Your task to perform on an android device: Play the latest video from the BBC Image 0: 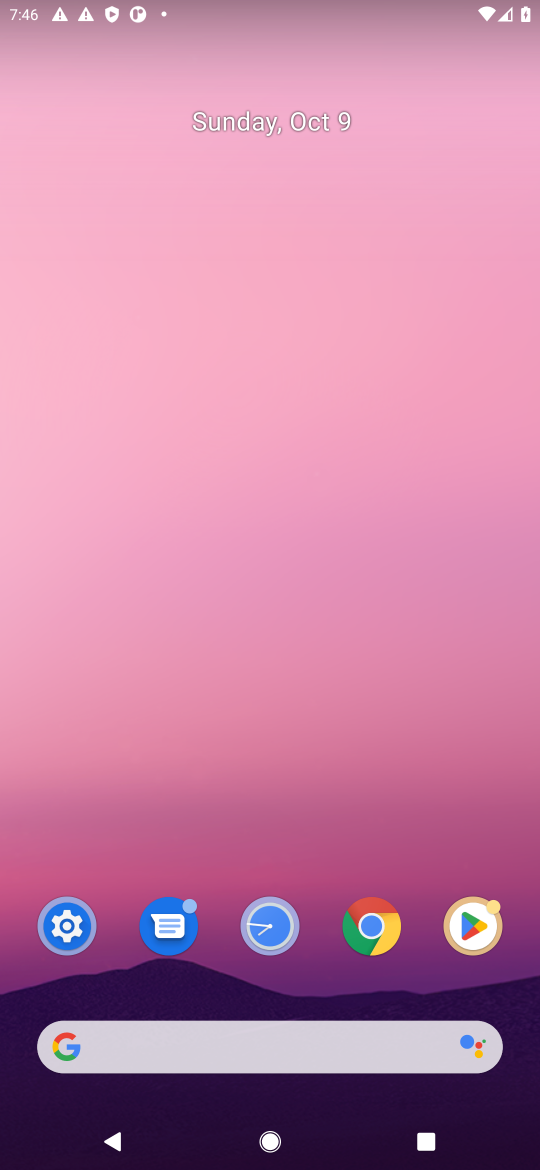
Step 0: drag from (285, 931) to (283, 203)
Your task to perform on an android device: Play the latest video from the BBC Image 1: 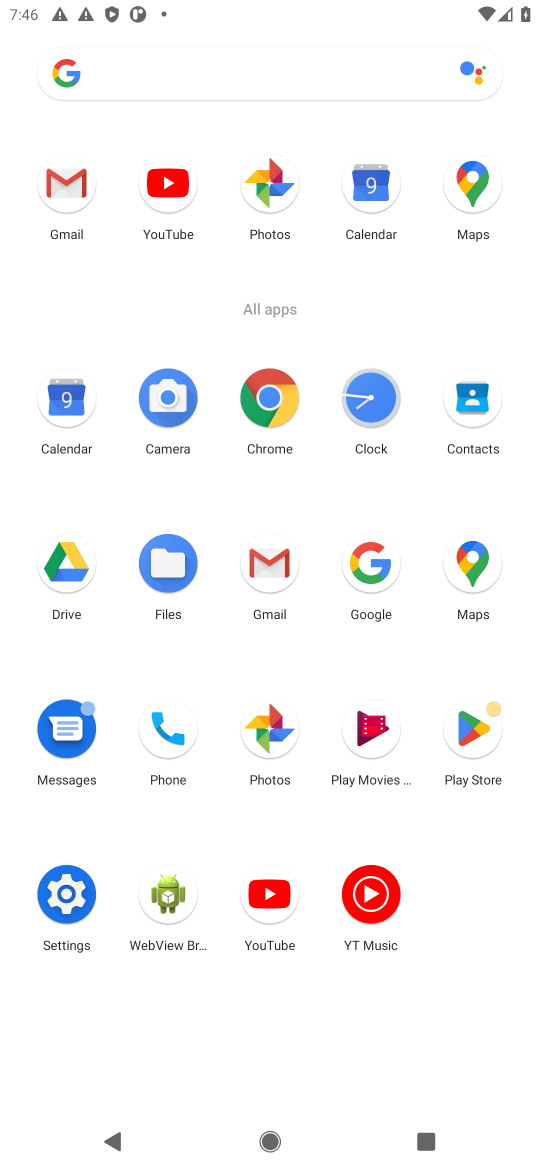
Step 1: click (273, 897)
Your task to perform on an android device: Play the latest video from the BBC Image 2: 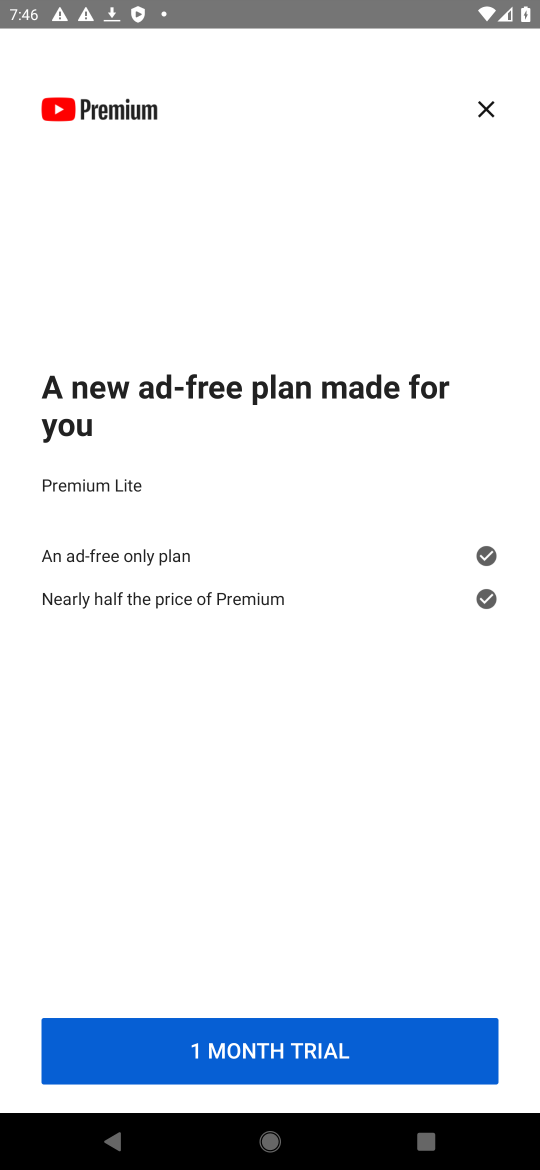
Step 2: click (483, 103)
Your task to perform on an android device: Play the latest video from the BBC Image 3: 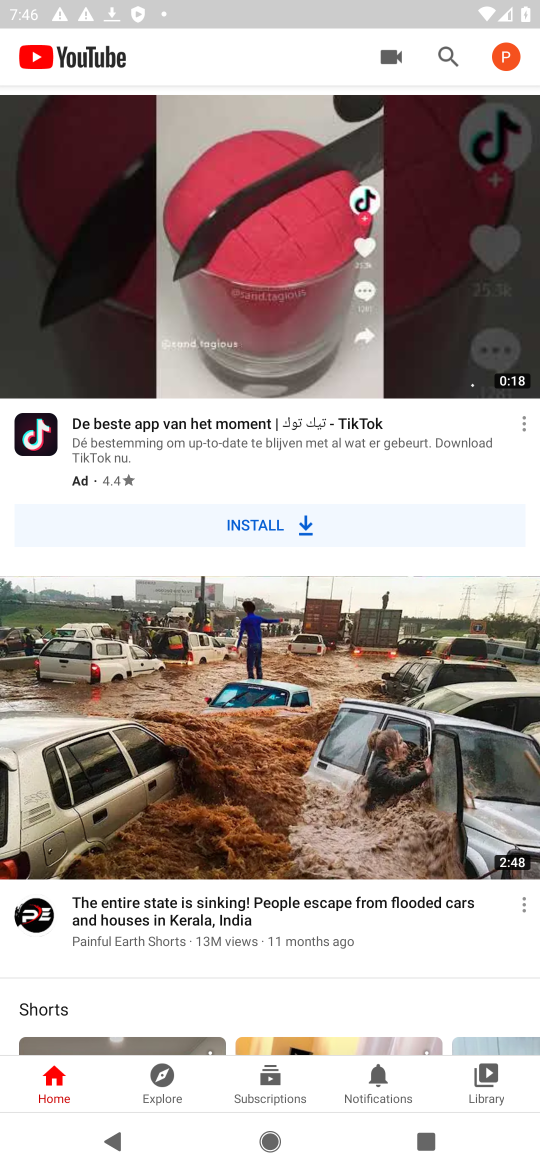
Step 3: click (443, 47)
Your task to perform on an android device: Play the latest video from the BBC Image 4: 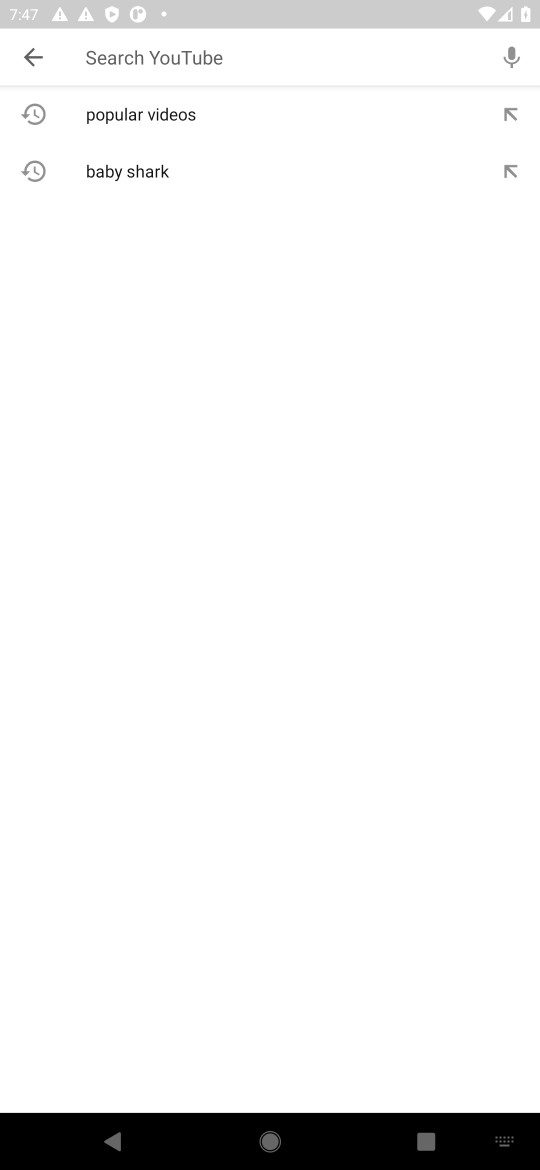
Step 4: type "latest video from the BBC"
Your task to perform on an android device: Play the latest video from the BBC Image 5: 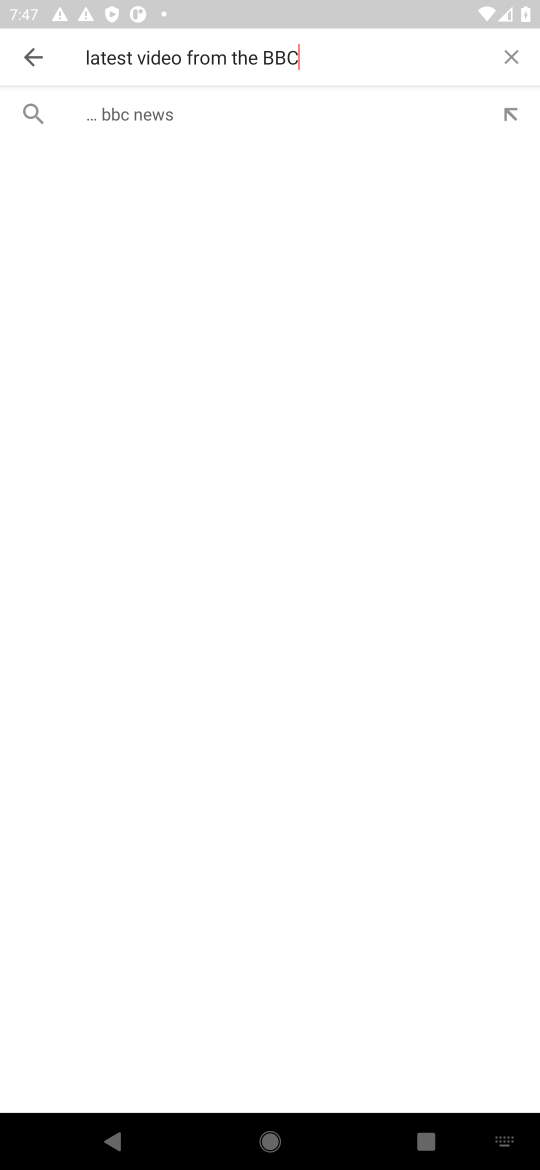
Step 5: type ""
Your task to perform on an android device: Play the latest video from the BBC Image 6: 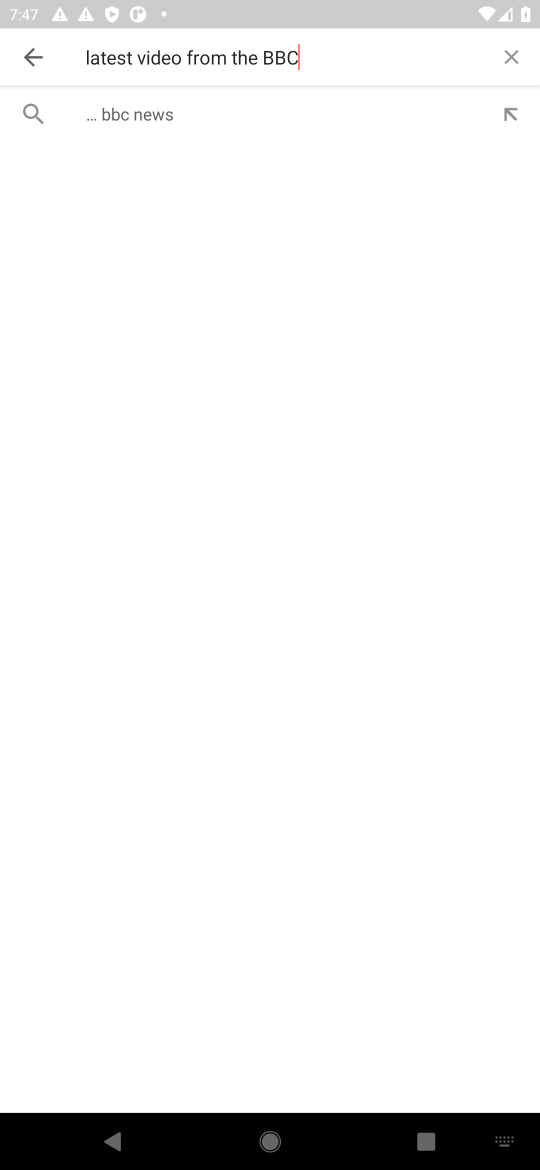
Step 6: click (153, 118)
Your task to perform on an android device: Play the latest video from the BBC Image 7: 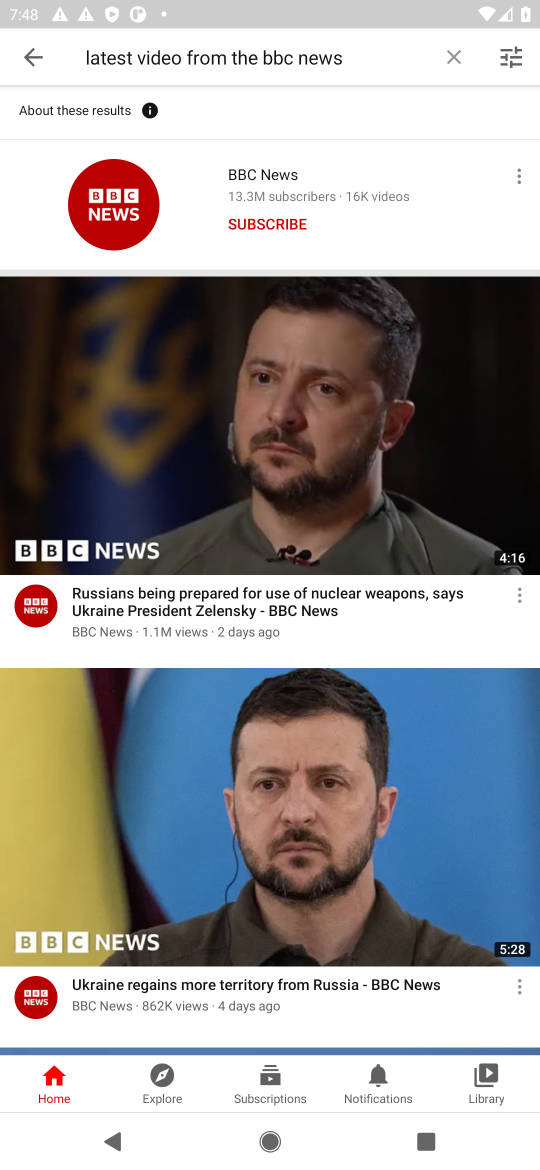
Step 7: click (229, 369)
Your task to perform on an android device: Play the latest video from the BBC Image 8: 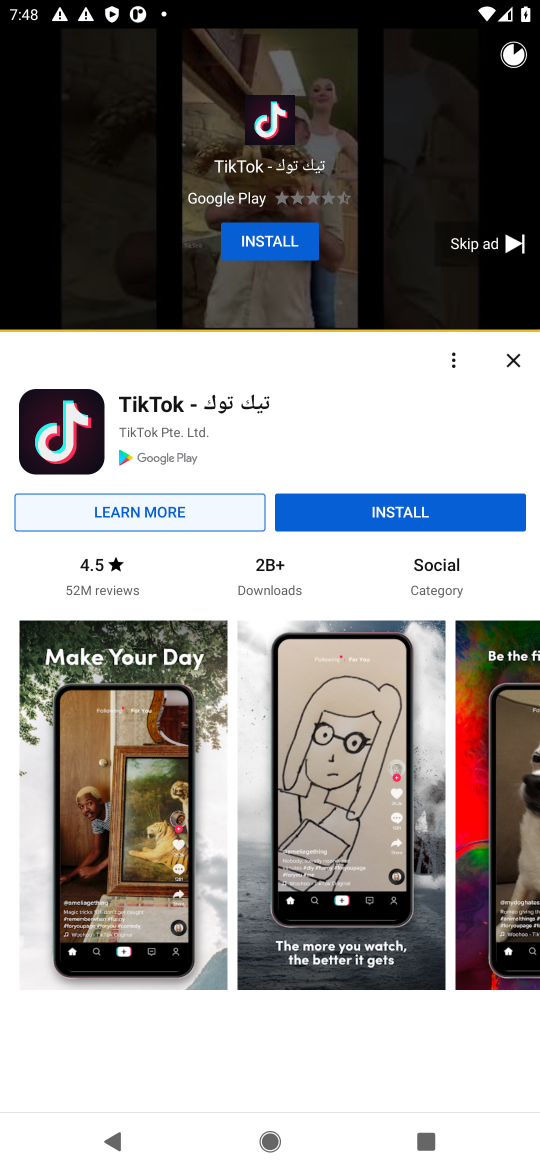
Step 8: click (498, 238)
Your task to perform on an android device: Play the latest video from the BBC Image 9: 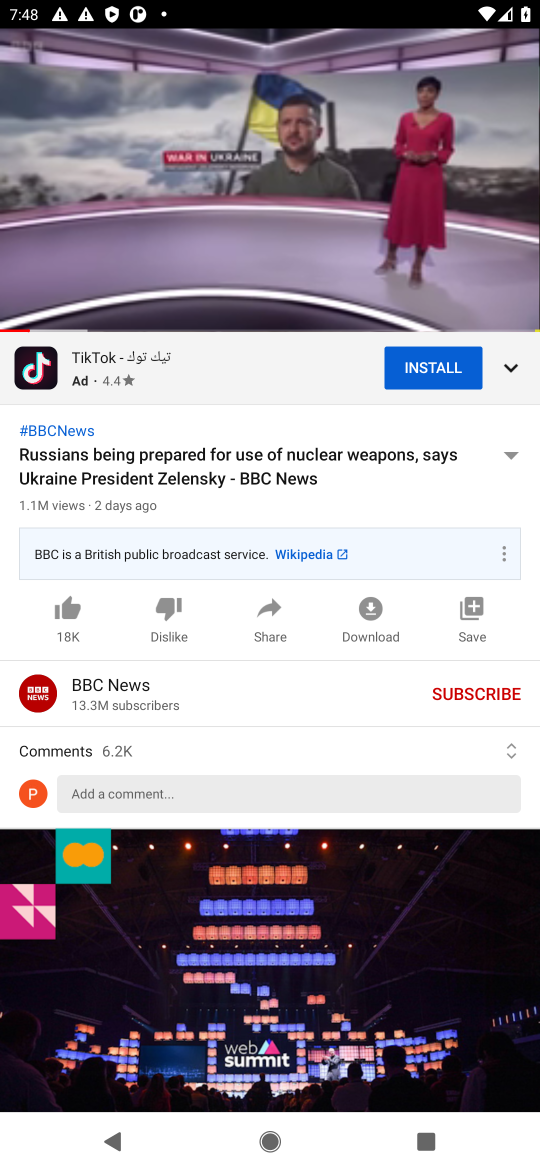
Step 9: click (255, 205)
Your task to perform on an android device: Play the latest video from the BBC Image 10: 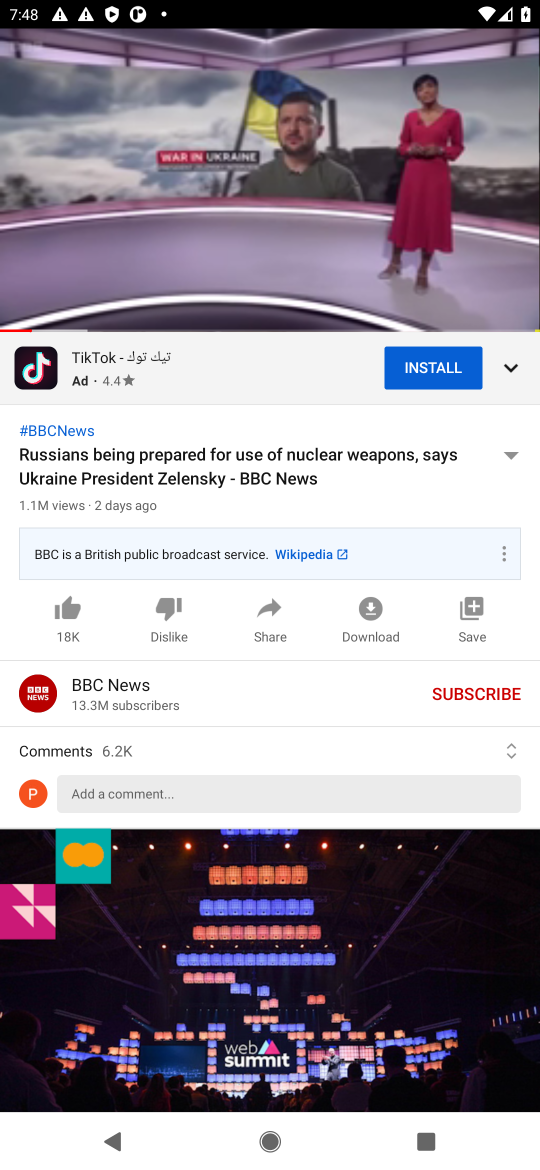
Step 10: task complete